Your task to perform on an android device: open app "AliExpress" (install if not already installed) and enter user name: "orangutan@inbox.com" and password: "Lyons" Image 0: 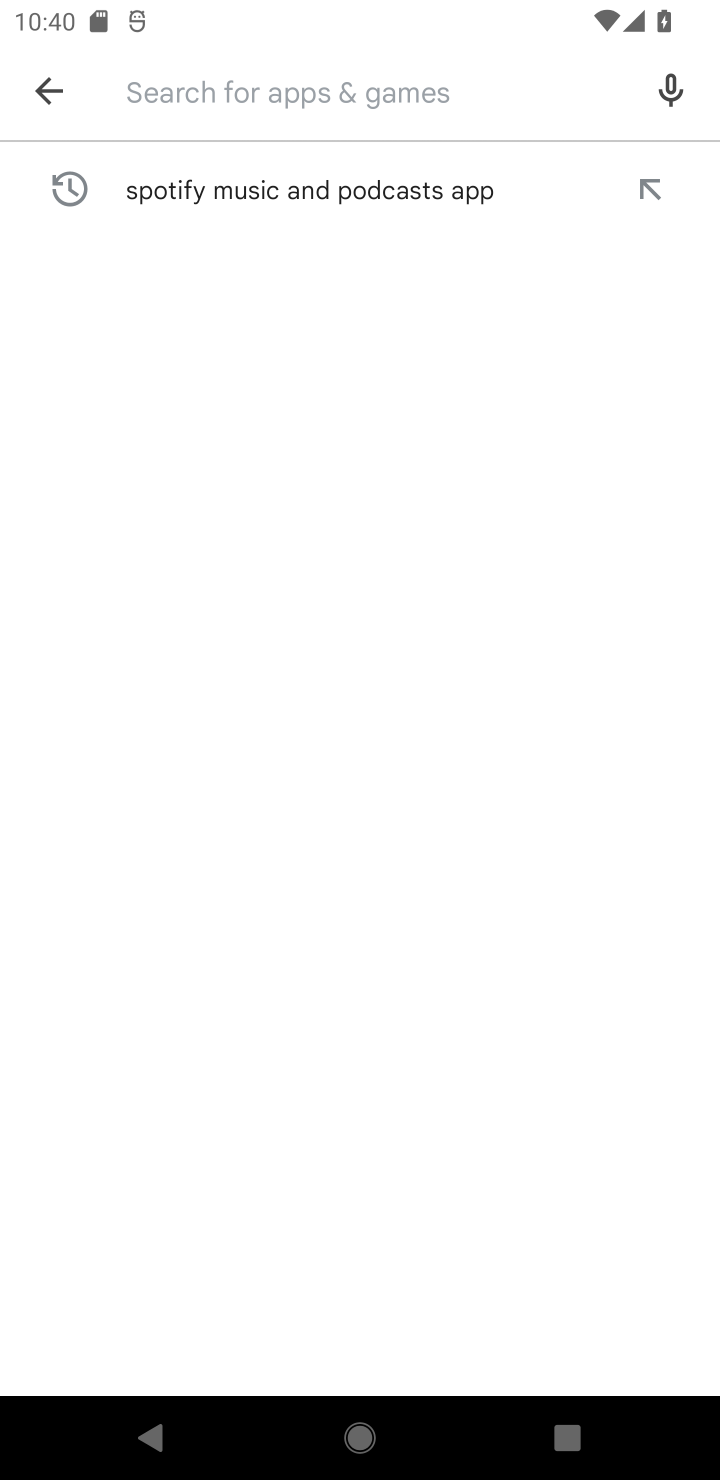
Step 0: press home button
Your task to perform on an android device: open app "AliExpress" (install if not already installed) and enter user name: "orangutan@inbox.com" and password: "Lyons" Image 1: 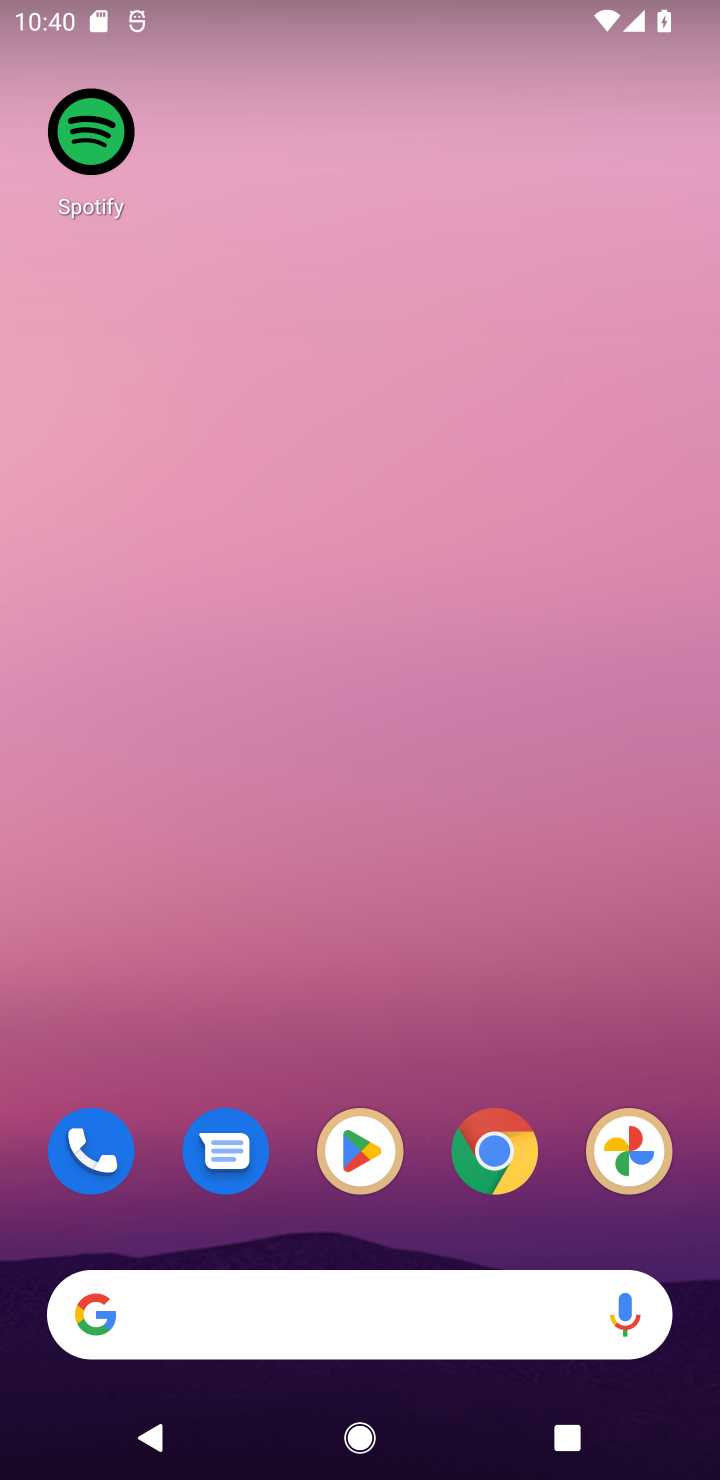
Step 1: drag from (413, 1214) to (429, 74)
Your task to perform on an android device: open app "AliExpress" (install if not already installed) and enter user name: "orangutan@inbox.com" and password: "Lyons" Image 2: 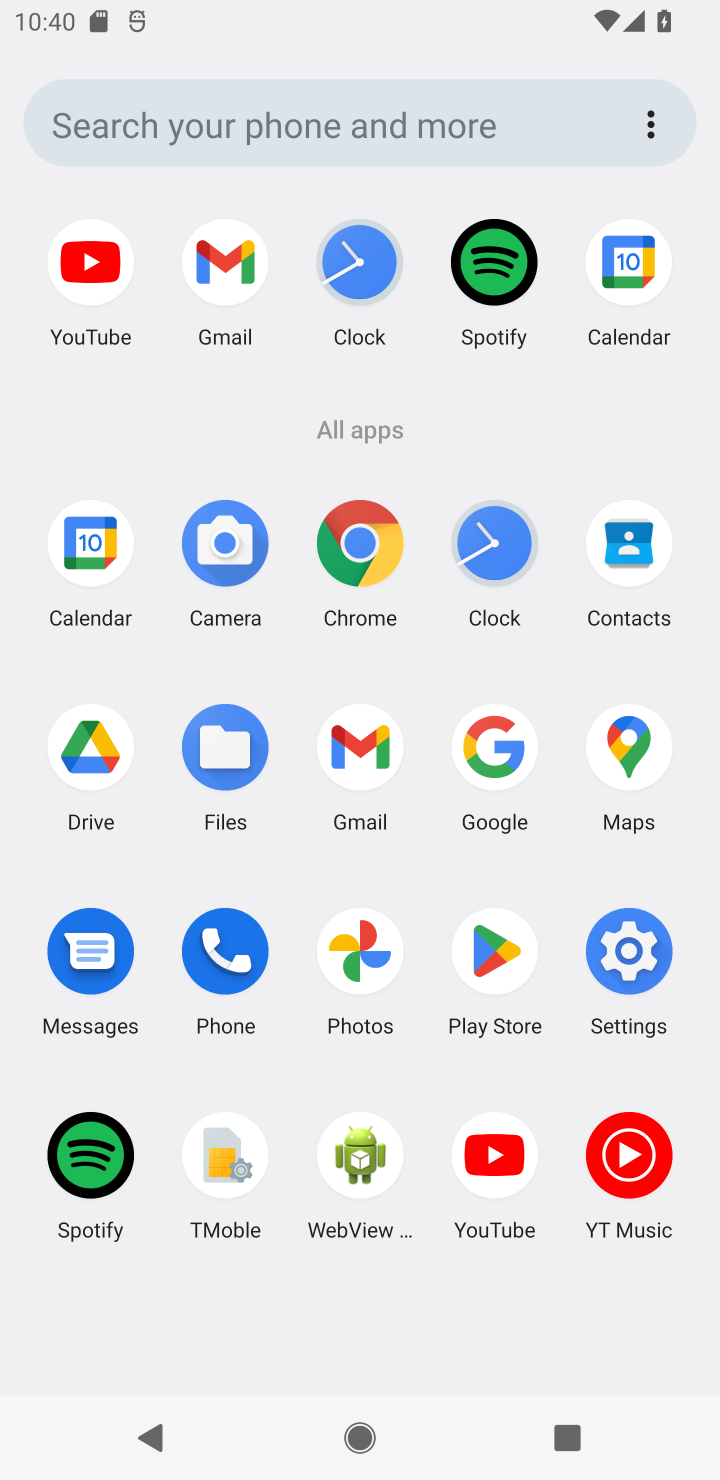
Step 2: click (494, 949)
Your task to perform on an android device: open app "AliExpress" (install if not already installed) and enter user name: "orangutan@inbox.com" and password: "Lyons" Image 3: 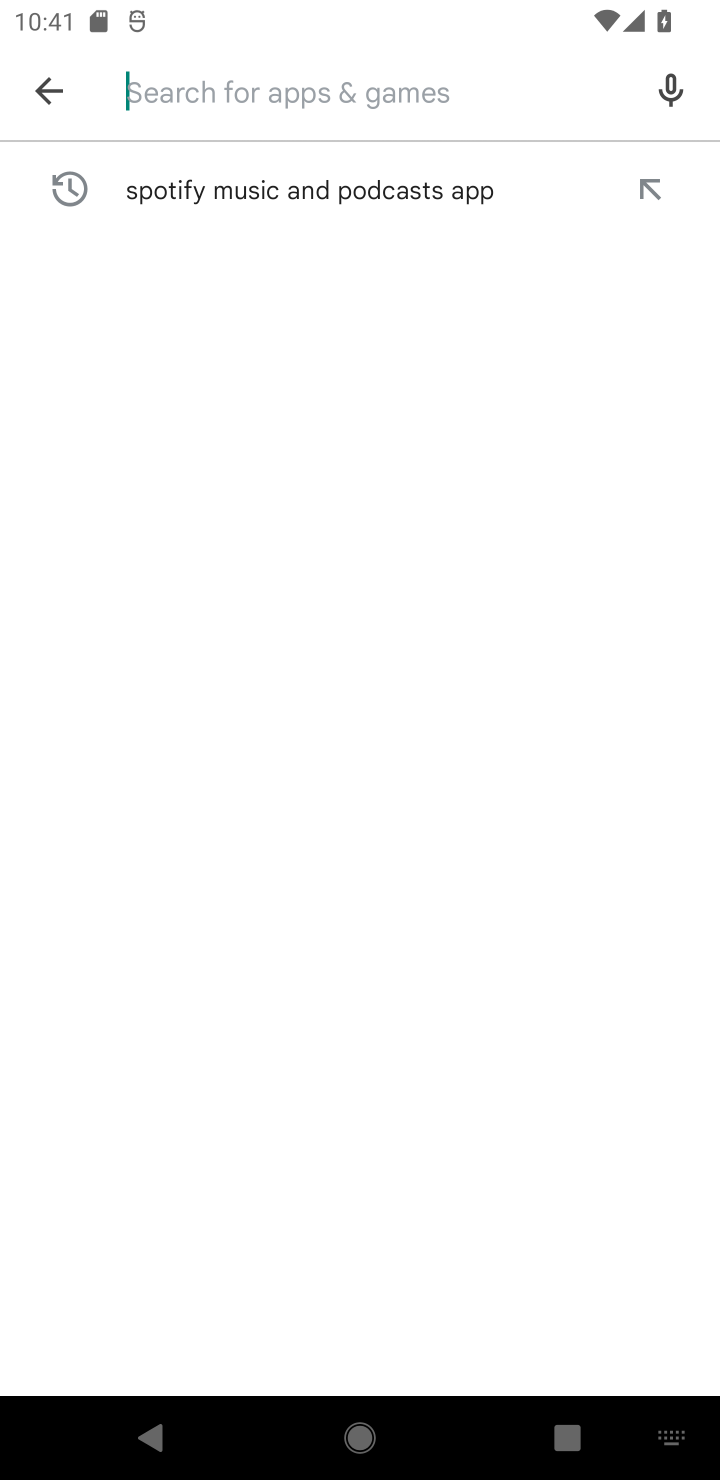
Step 3: type "AliExpress"
Your task to perform on an android device: open app "AliExpress" (install if not already installed) and enter user name: "orangutan@inbox.com" and password: "Lyons" Image 4: 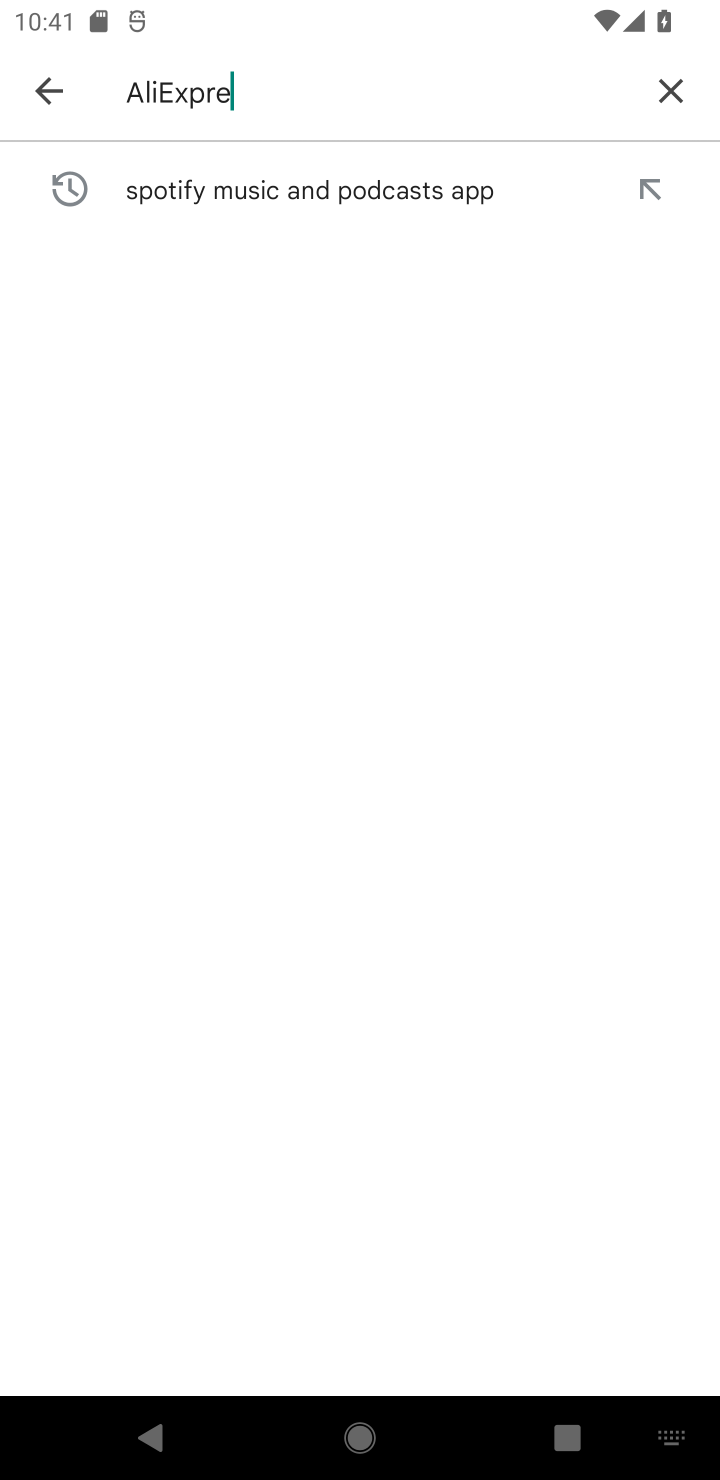
Step 4: type ""
Your task to perform on an android device: open app "AliExpress" (install if not already installed) and enter user name: "orangutan@inbox.com" and password: "Lyons" Image 5: 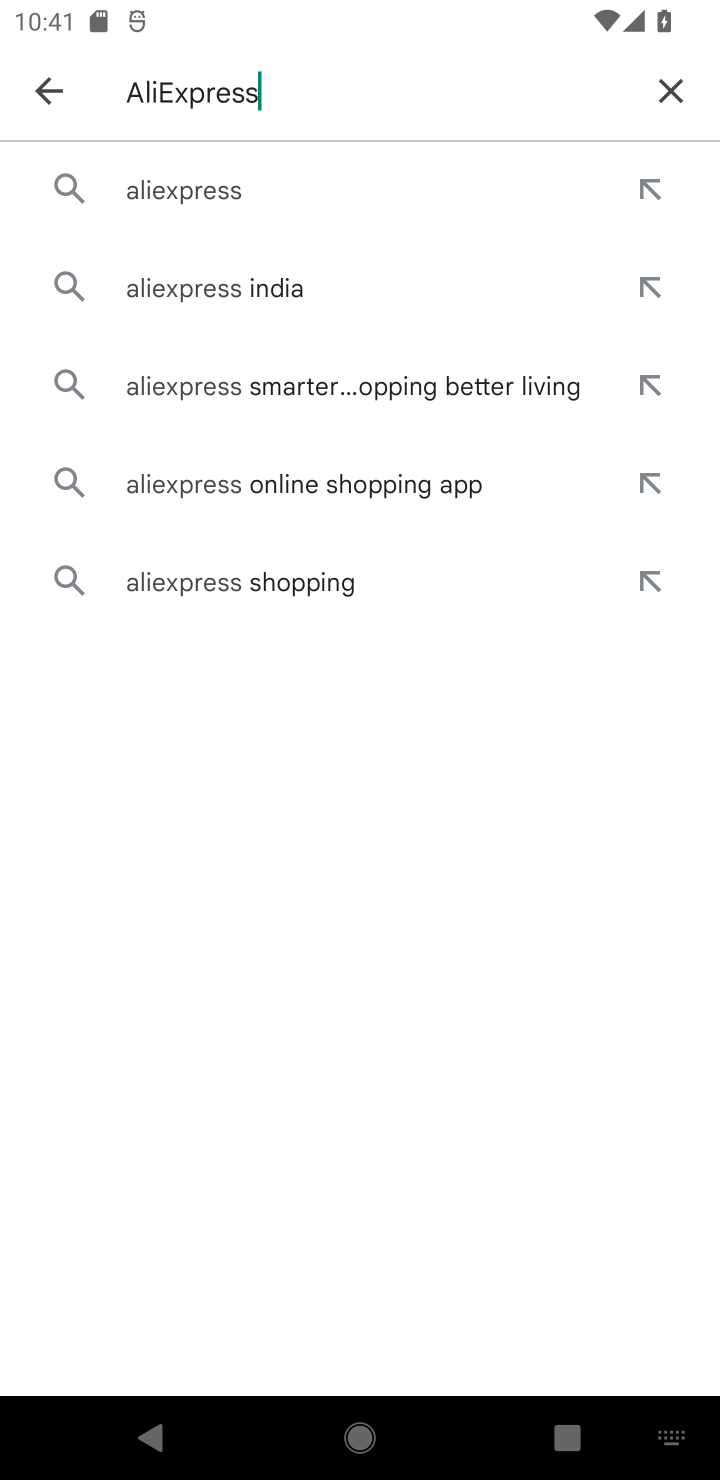
Step 5: click (228, 186)
Your task to perform on an android device: open app "AliExpress" (install if not already installed) and enter user name: "orangutan@inbox.com" and password: "Lyons" Image 6: 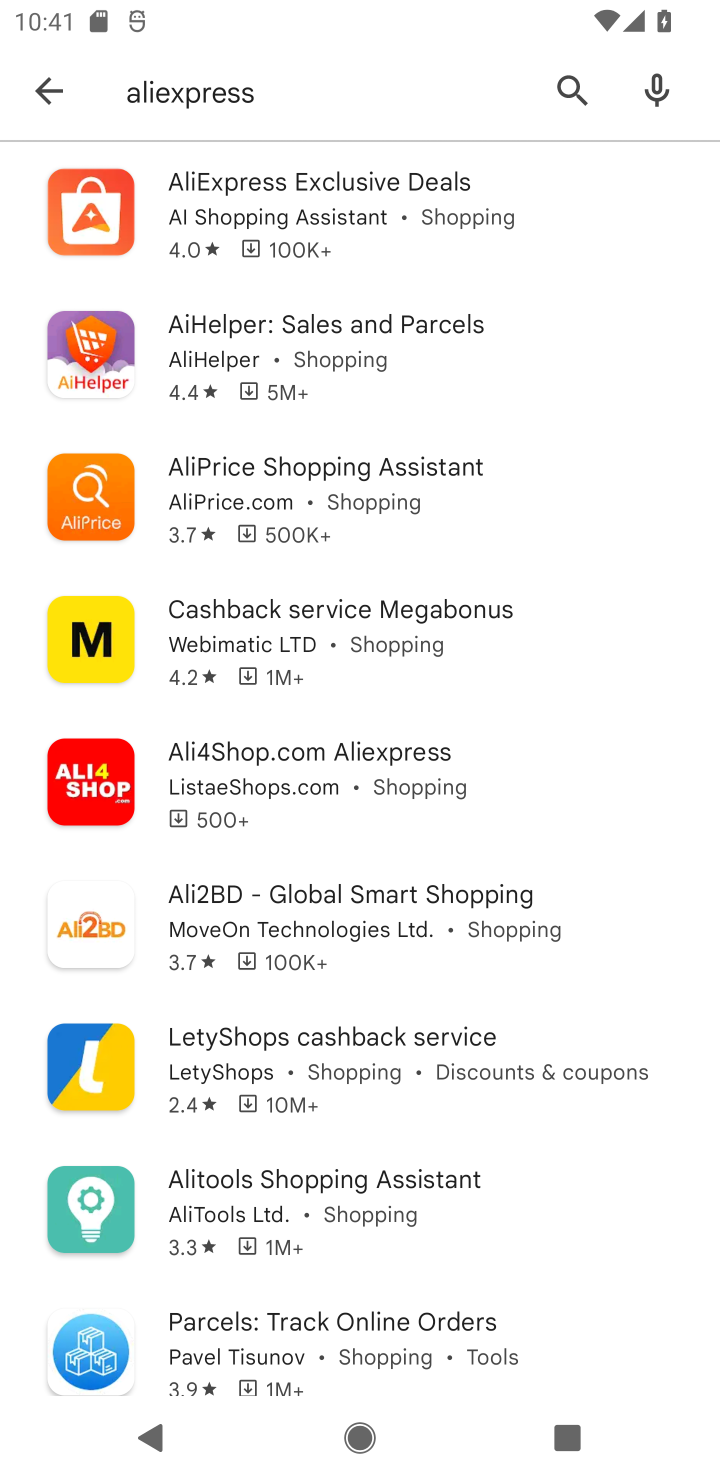
Step 6: click (273, 204)
Your task to perform on an android device: open app "AliExpress" (install if not already installed) and enter user name: "orangutan@inbox.com" and password: "Lyons" Image 7: 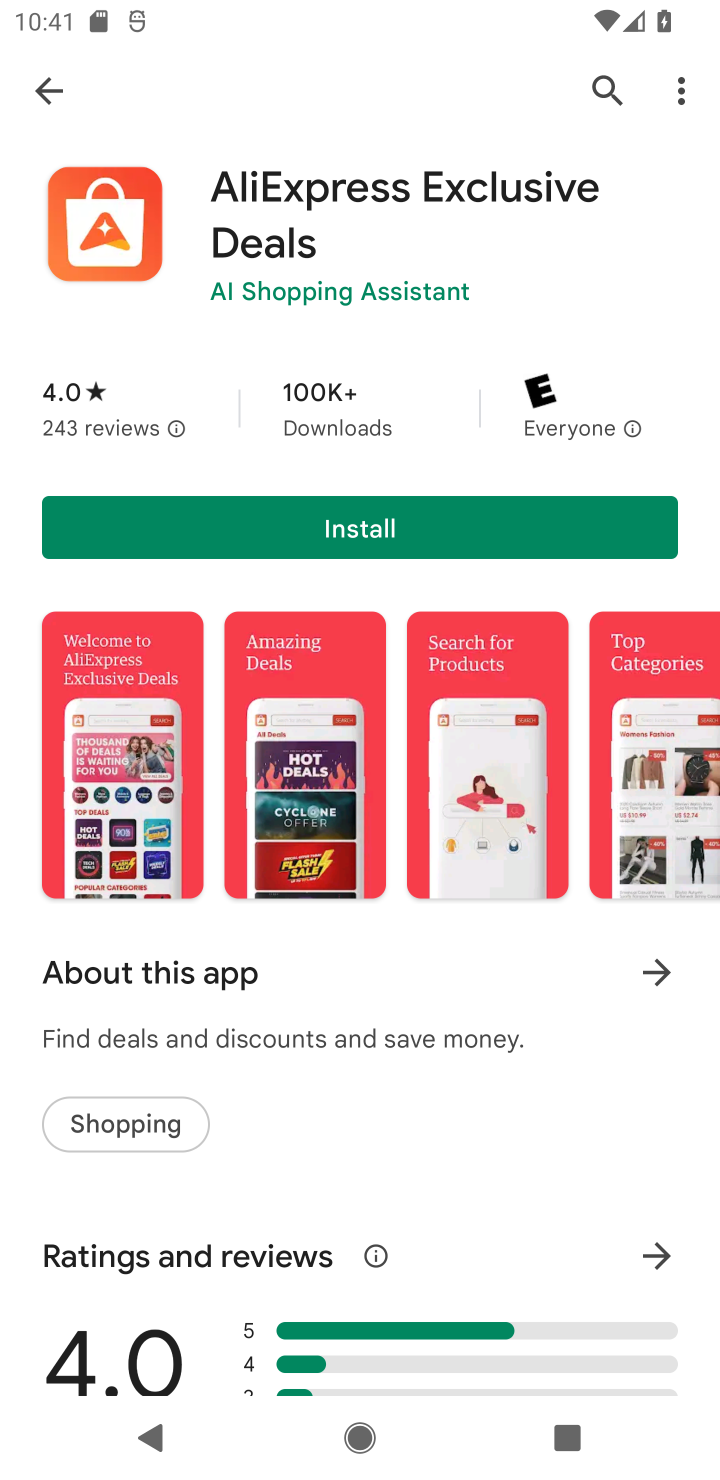
Step 7: click (347, 523)
Your task to perform on an android device: open app "AliExpress" (install if not already installed) and enter user name: "orangutan@inbox.com" and password: "Lyons" Image 8: 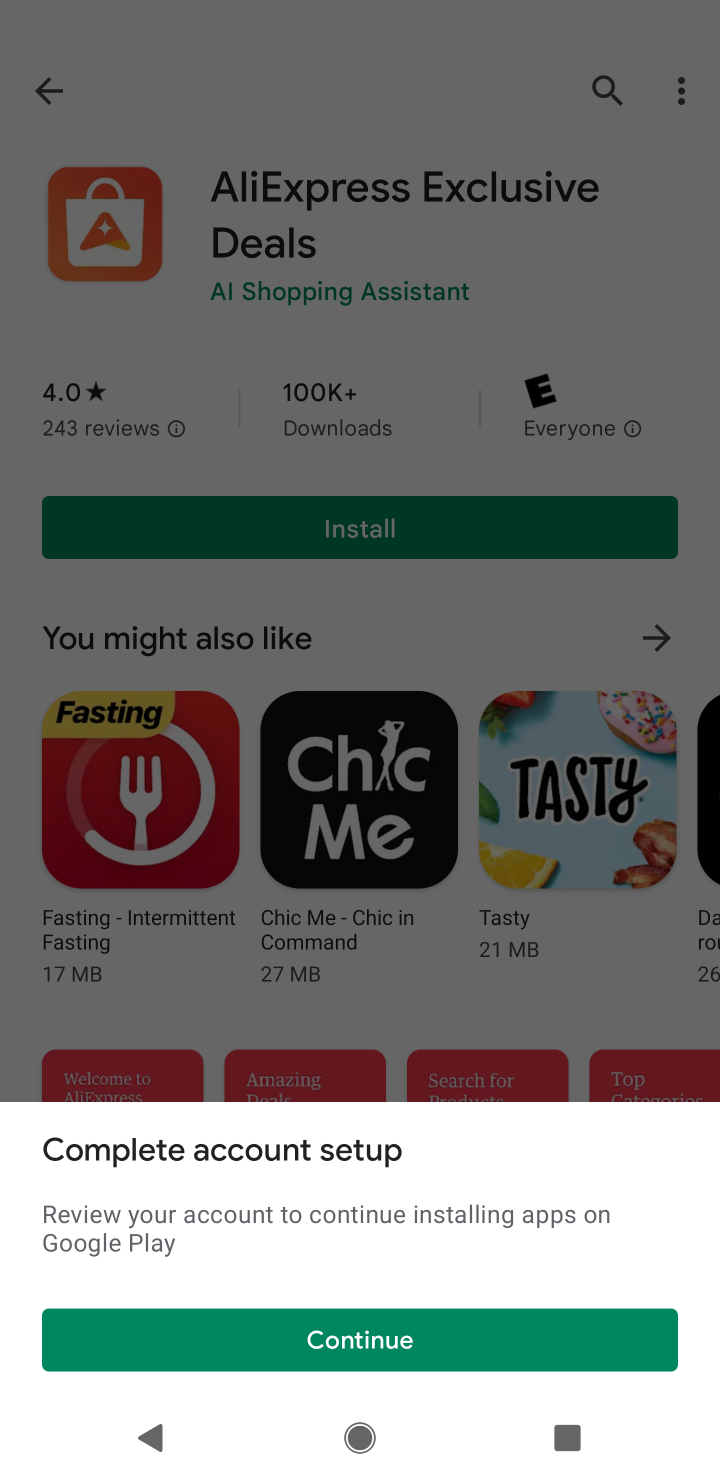
Step 8: click (384, 1353)
Your task to perform on an android device: open app "AliExpress" (install if not already installed) and enter user name: "orangutan@inbox.com" and password: "Lyons" Image 9: 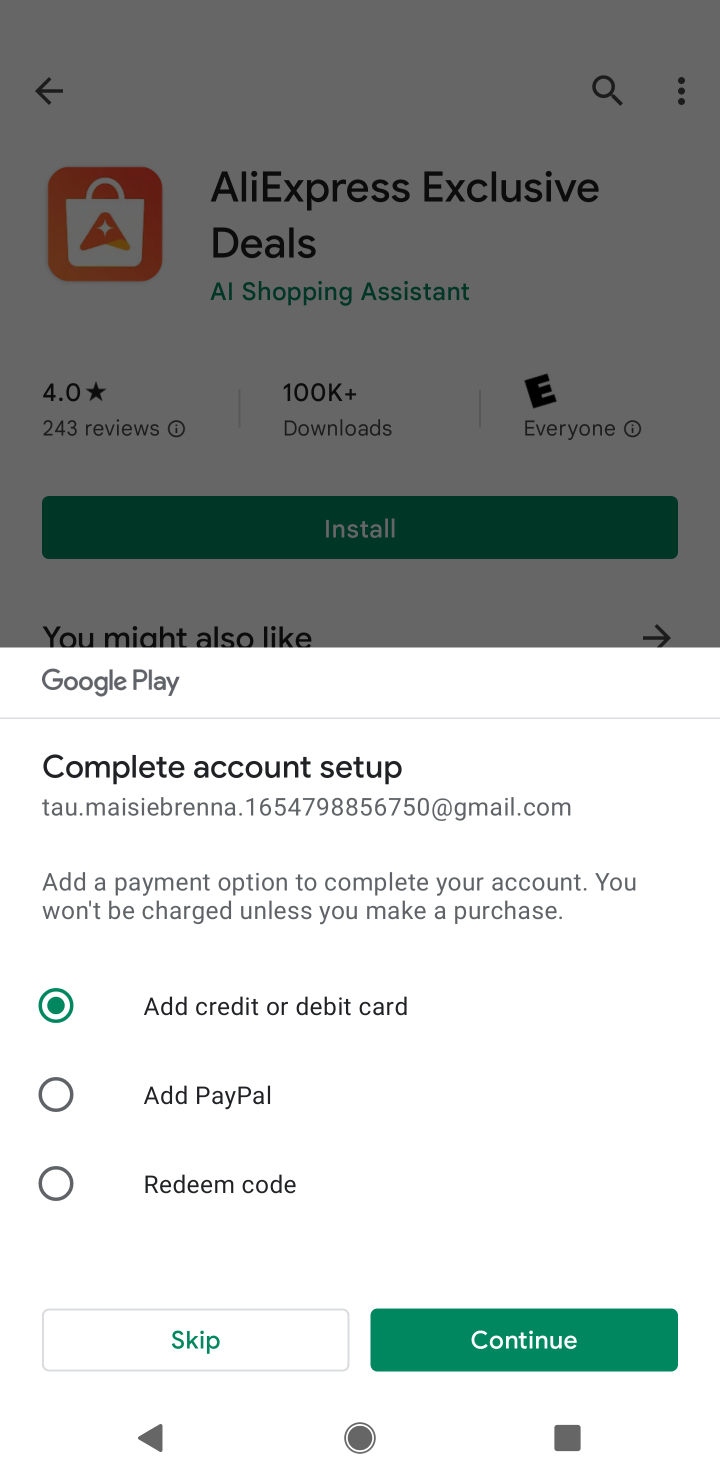
Step 9: click (193, 1335)
Your task to perform on an android device: open app "AliExpress" (install if not already installed) and enter user name: "orangutan@inbox.com" and password: "Lyons" Image 10: 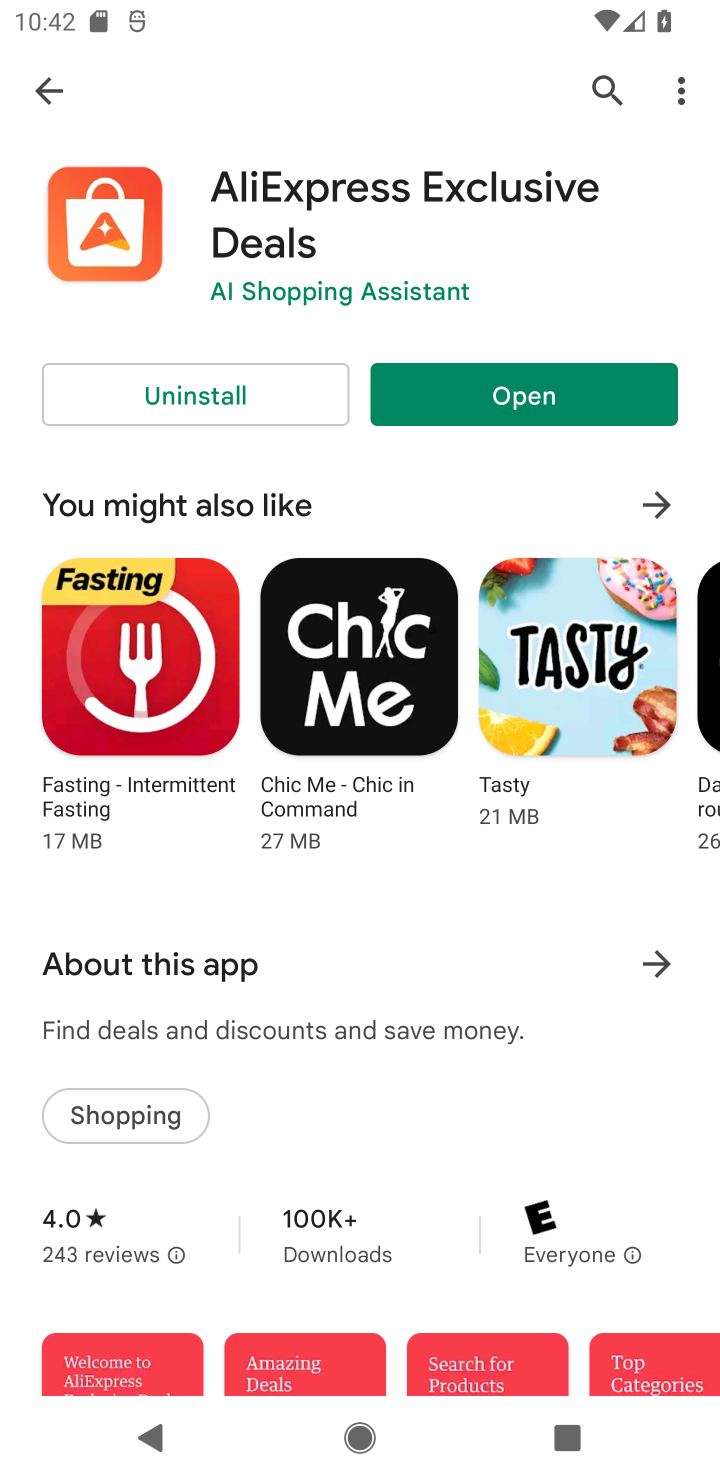
Step 10: click (531, 405)
Your task to perform on an android device: open app "AliExpress" (install if not already installed) and enter user name: "orangutan@inbox.com" and password: "Lyons" Image 11: 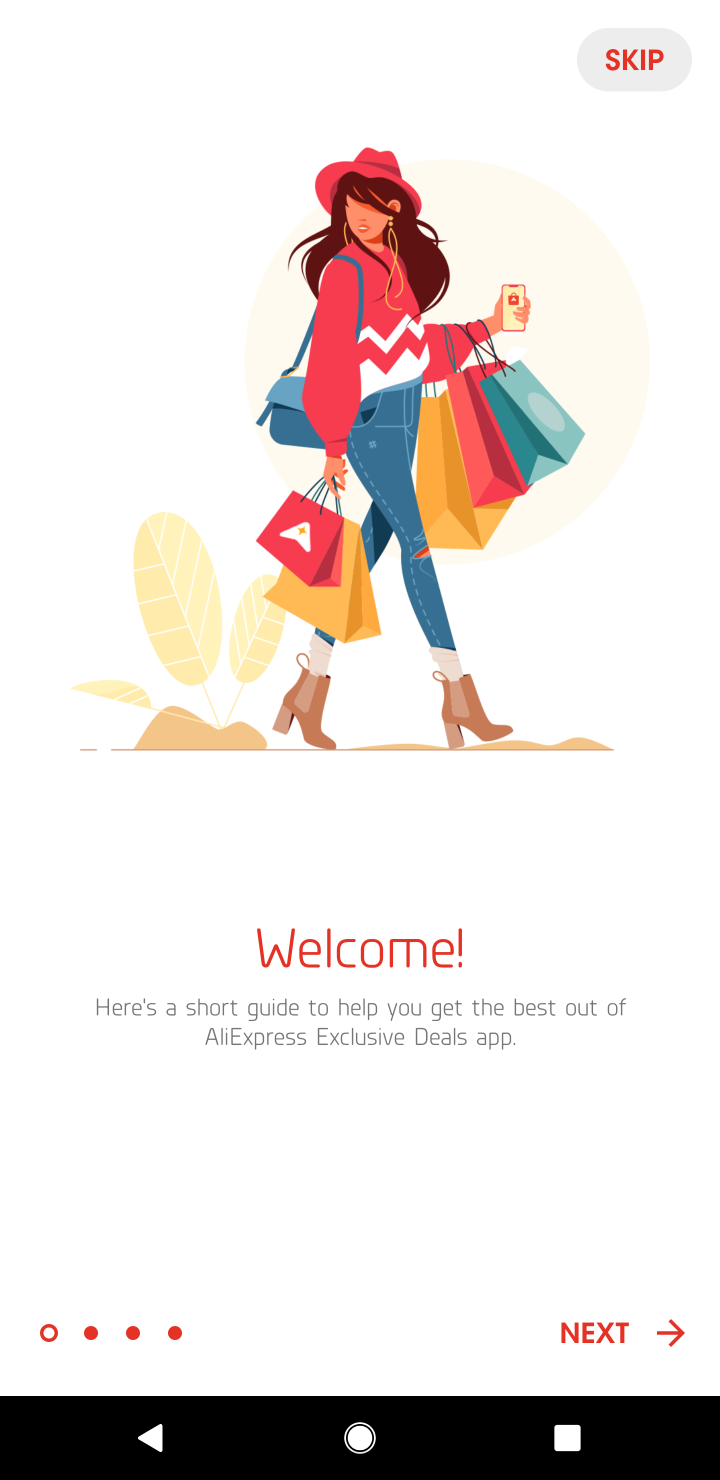
Step 11: click (618, 1322)
Your task to perform on an android device: open app "AliExpress" (install if not already installed) and enter user name: "orangutan@inbox.com" and password: "Lyons" Image 12: 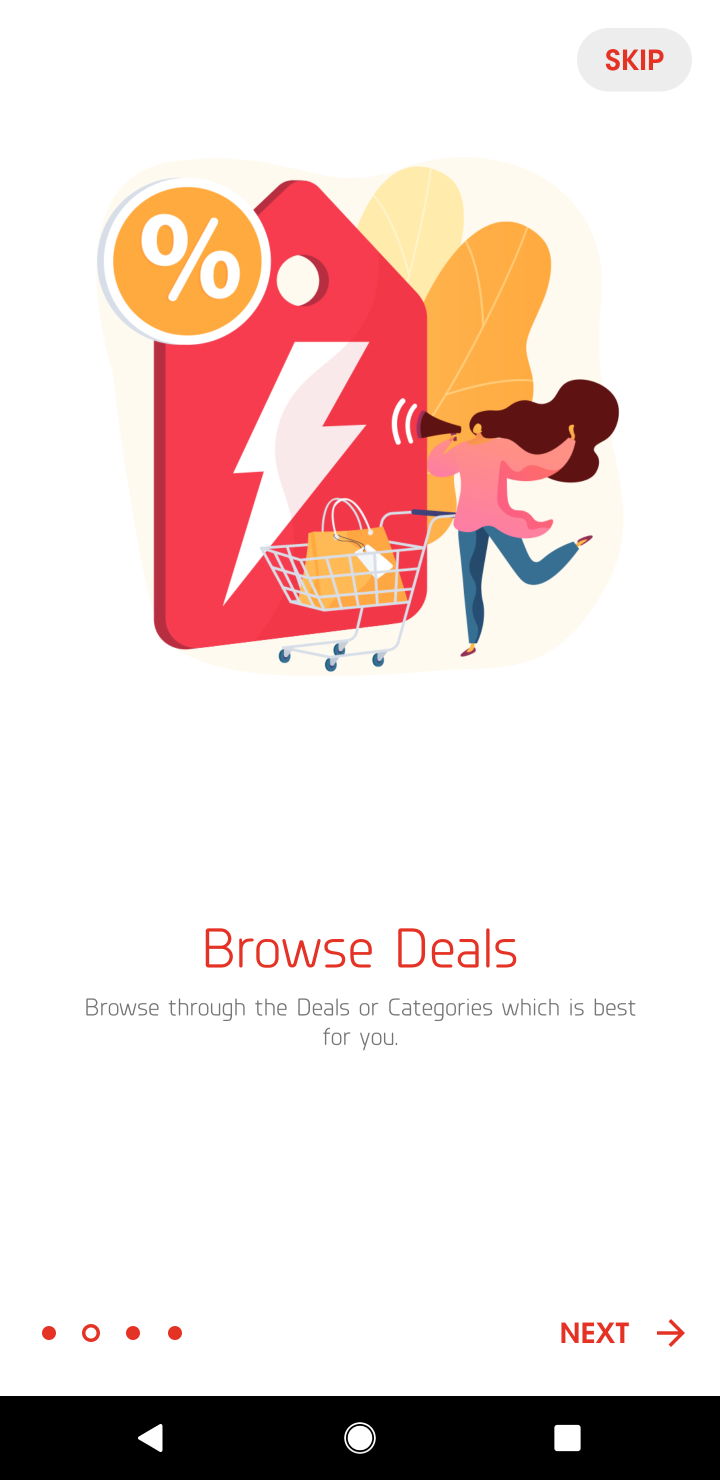
Step 12: click (594, 1316)
Your task to perform on an android device: open app "AliExpress" (install if not already installed) and enter user name: "orangutan@inbox.com" and password: "Lyons" Image 13: 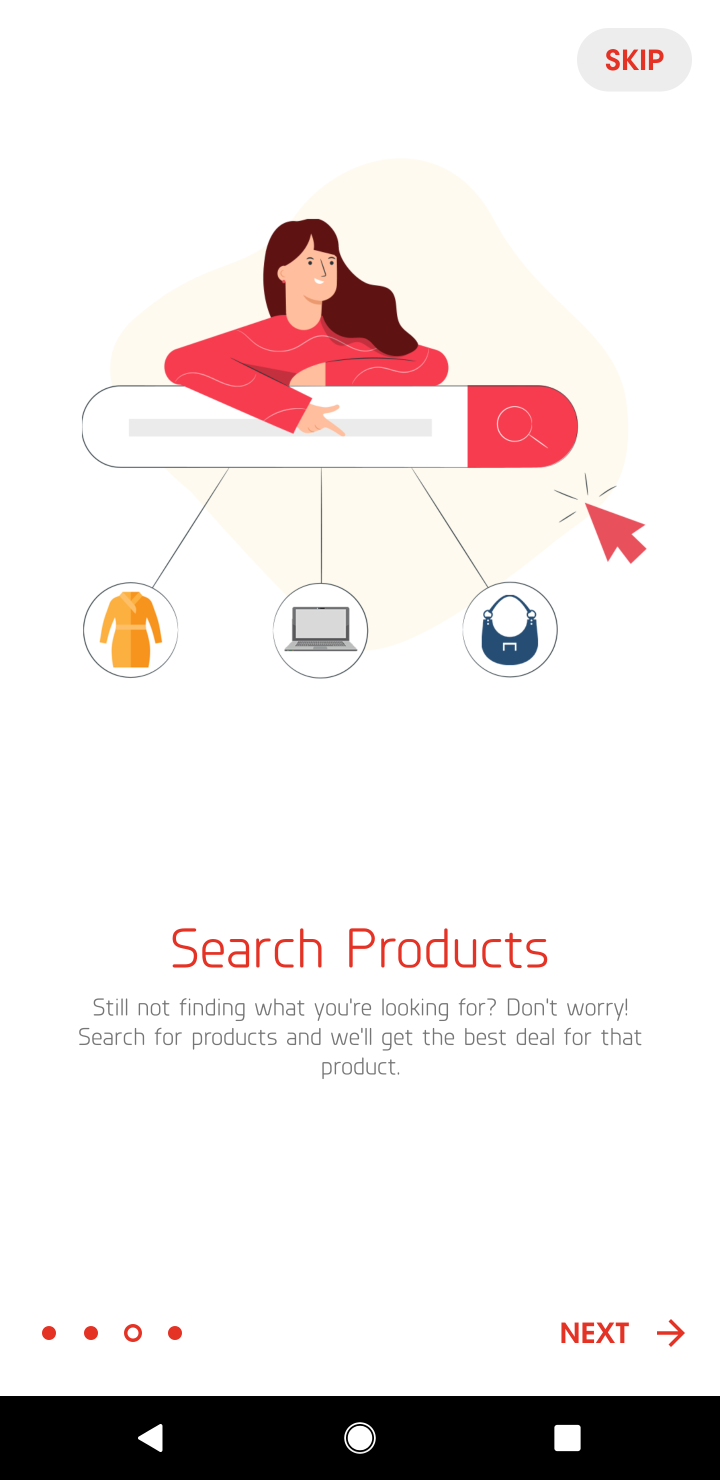
Step 13: click (612, 65)
Your task to perform on an android device: open app "AliExpress" (install if not already installed) and enter user name: "orangutan@inbox.com" and password: "Lyons" Image 14: 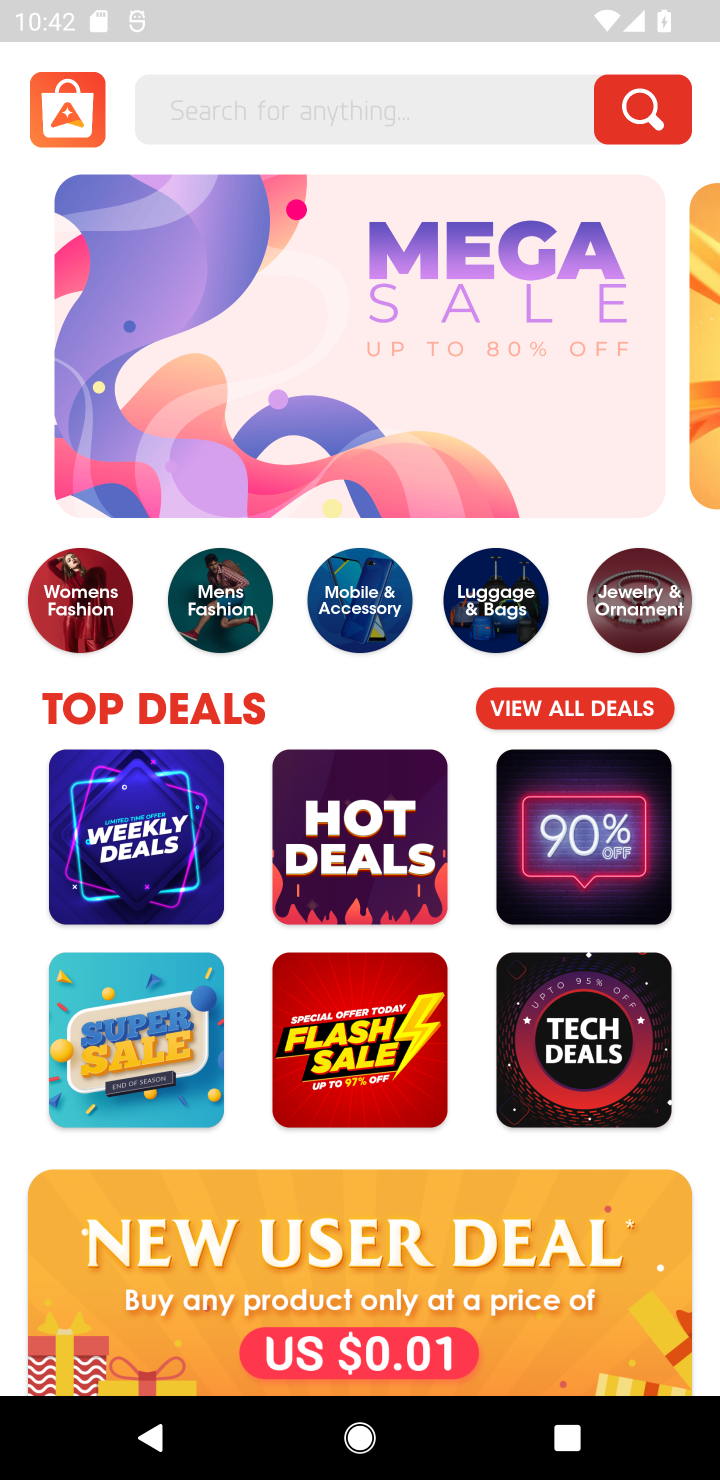
Step 14: click (52, 116)
Your task to perform on an android device: open app "AliExpress" (install if not already installed) and enter user name: "orangutan@inbox.com" and password: "Lyons" Image 15: 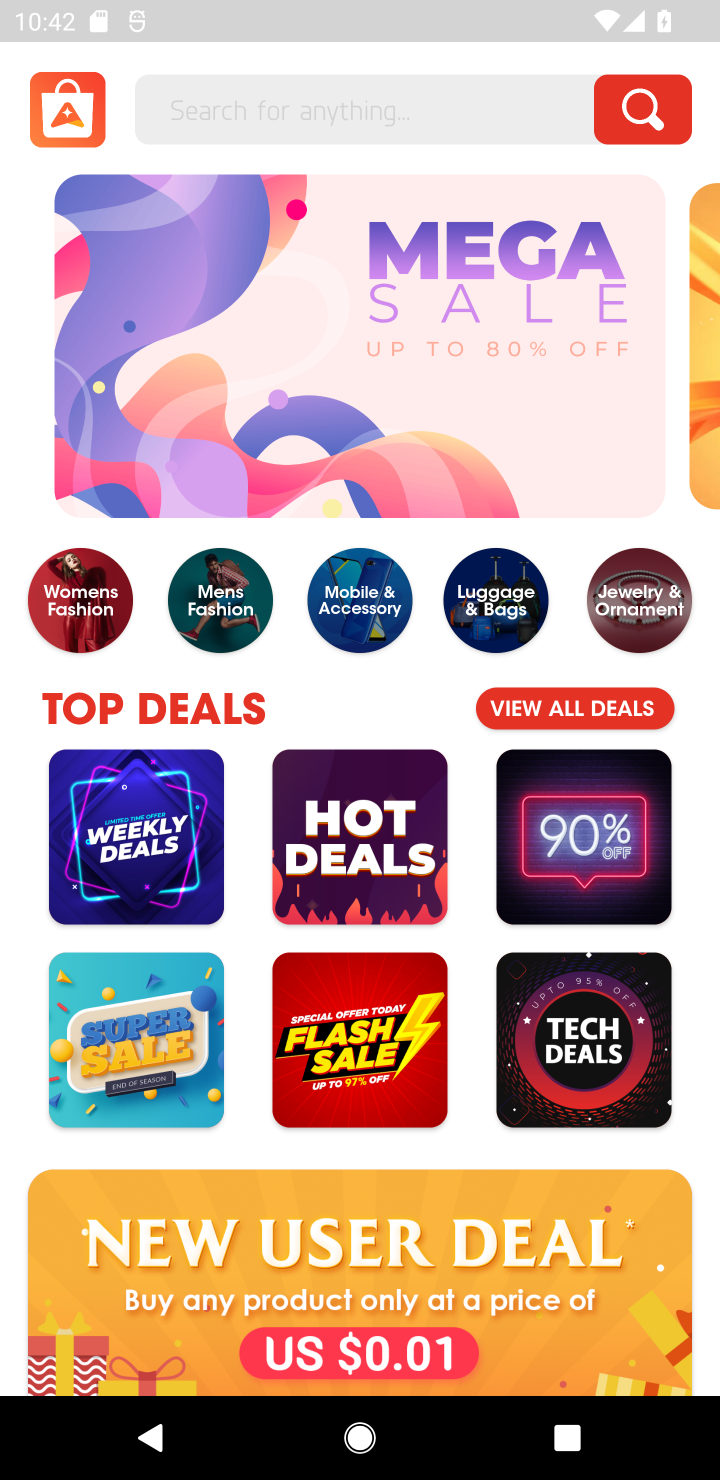
Step 15: click (56, 102)
Your task to perform on an android device: open app "AliExpress" (install if not already installed) and enter user name: "orangutan@inbox.com" and password: "Lyons" Image 16: 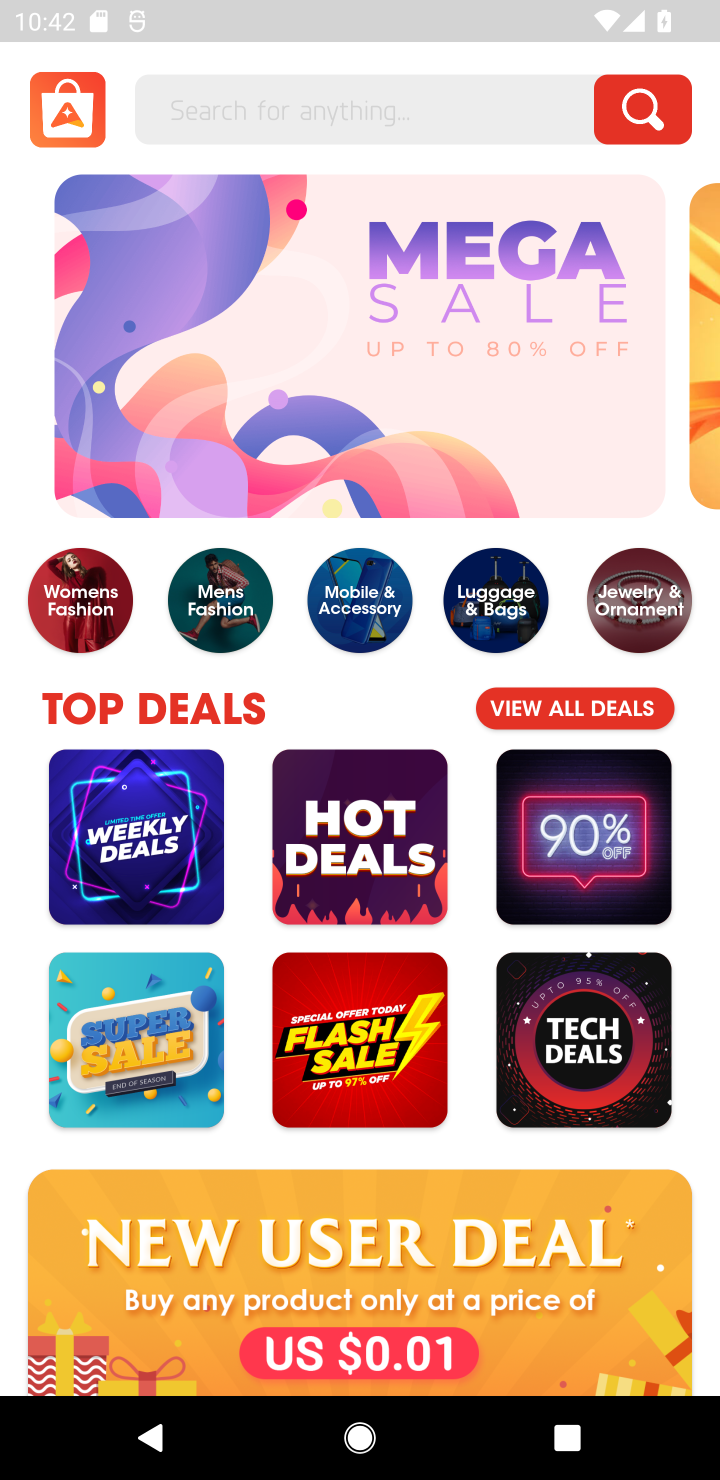
Step 16: task complete